Your task to perform on an android device: What is the recent news? Image 0: 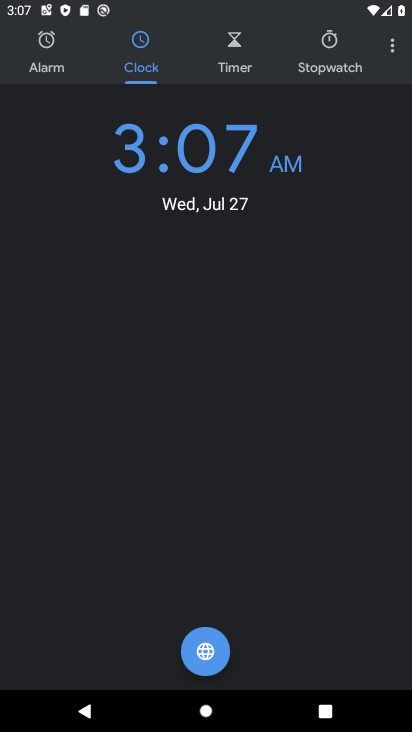
Step 0: press home button
Your task to perform on an android device: What is the recent news? Image 1: 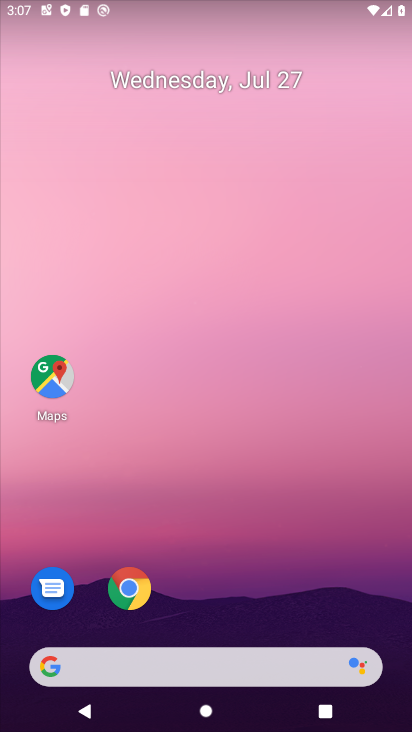
Step 1: drag from (267, 615) to (276, 60)
Your task to perform on an android device: What is the recent news? Image 2: 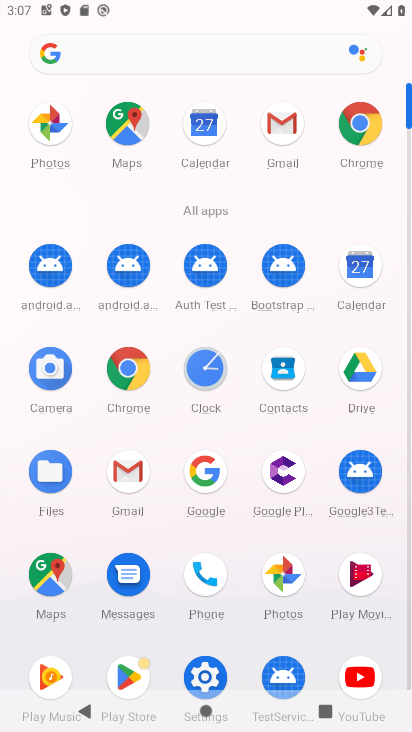
Step 2: click (360, 129)
Your task to perform on an android device: What is the recent news? Image 3: 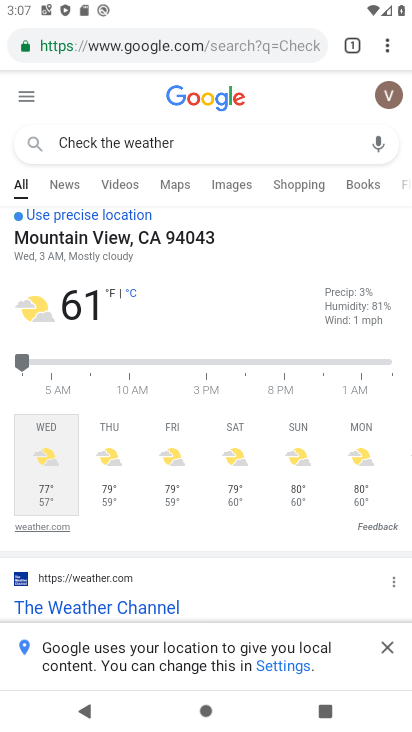
Step 3: click (189, 47)
Your task to perform on an android device: What is the recent news? Image 4: 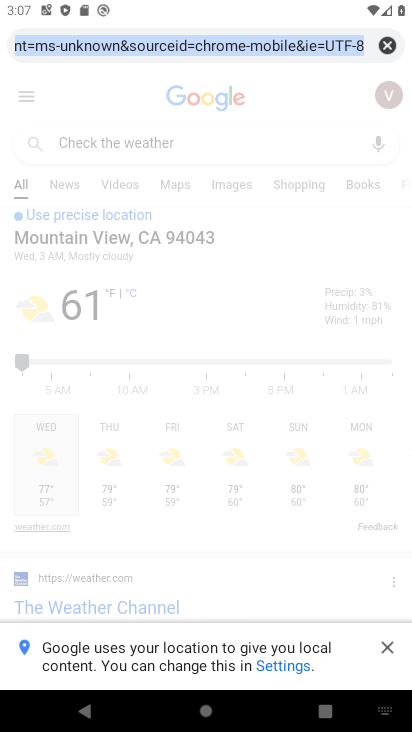
Step 4: type "What is the recent news?"
Your task to perform on an android device: What is the recent news? Image 5: 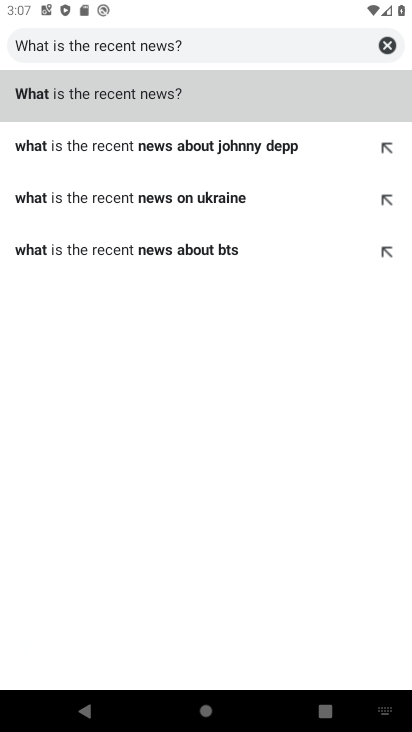
Step 5: click (200, 88)
Your task to perform on an android device: What is the recent news? Image 6: 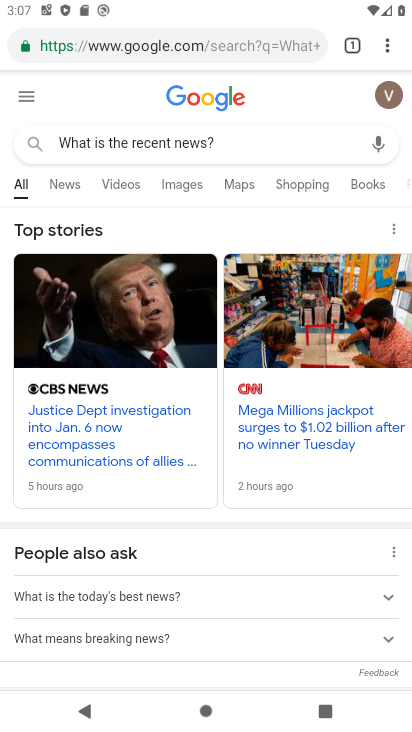
Step 6: task complete